Your task to perform on an android device: Do I have any events tomorrow? Image 0: 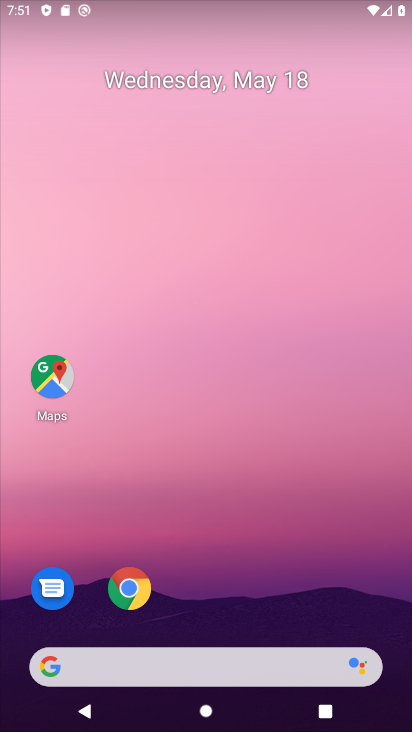
Step 0: drag from (256, 609) to (296, 200)
Your task to perform on an android device: Do I have any events tomorrow? Image 1: 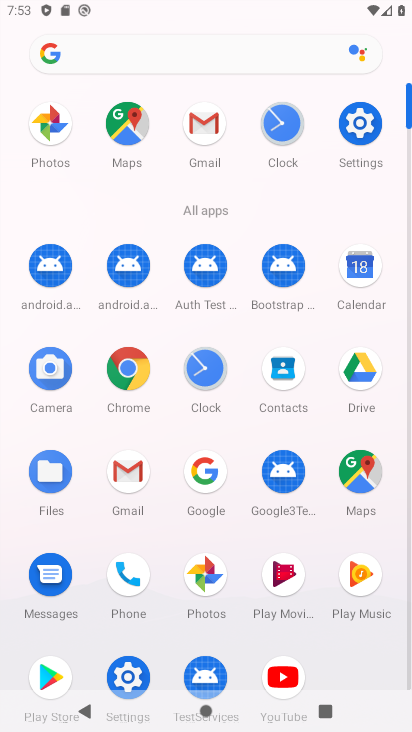
Step 1: click (360, 287)
Your task to perform on an android device: Do I have any events tomorrow? Image 2: 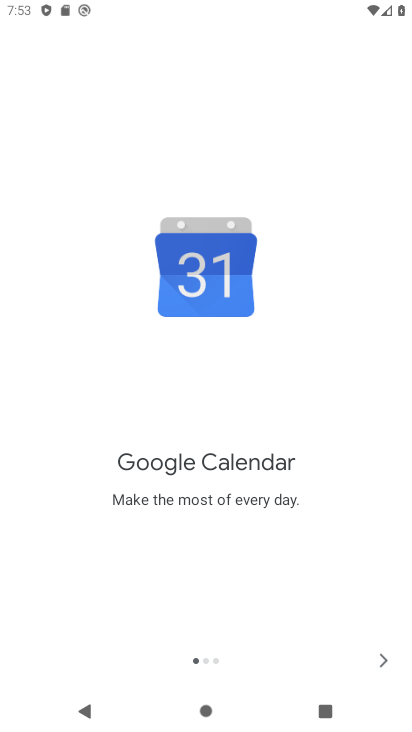
Step 2: click (392, 653)
Your task to perform on an android device: Do I have any events tomorrow? Image 3: 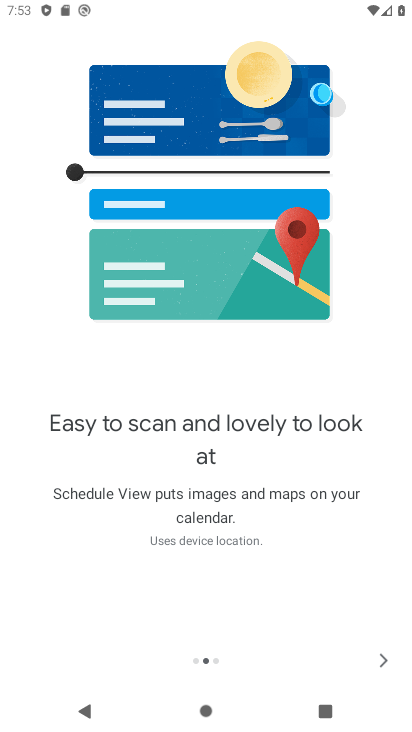
Step 3: click (392, 653)
Your task to perform on an android device: Do I have any events tomorrow? Image 4: 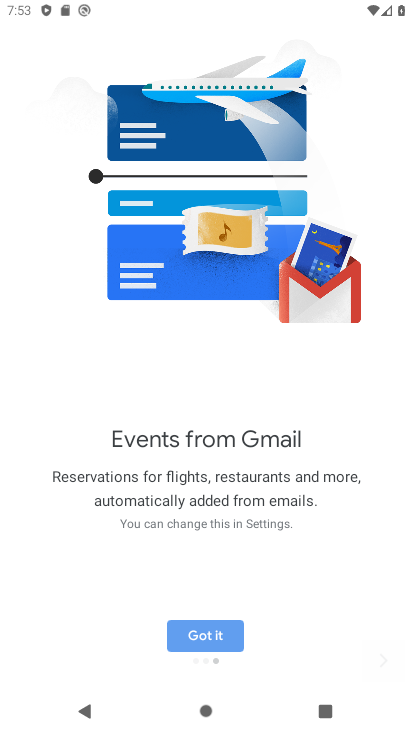
Step 4: click (392, 653)
Your task to perform on an android device: Do I have any events tomorrow? Image 5: 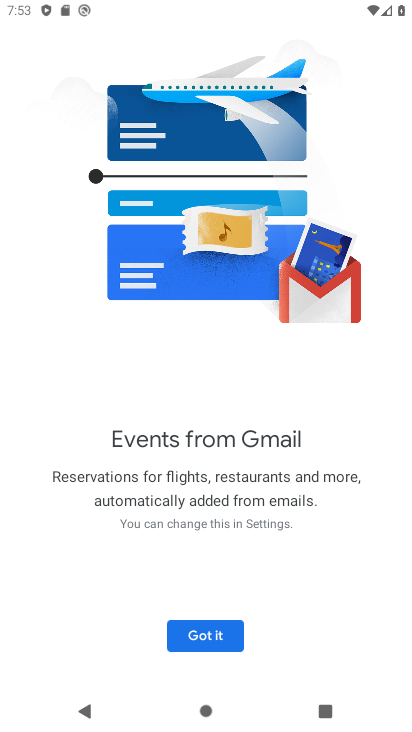
Step 5: click (174, 628)
Your task to perform on an android device: Do I have any events tomorrow? Image 6: 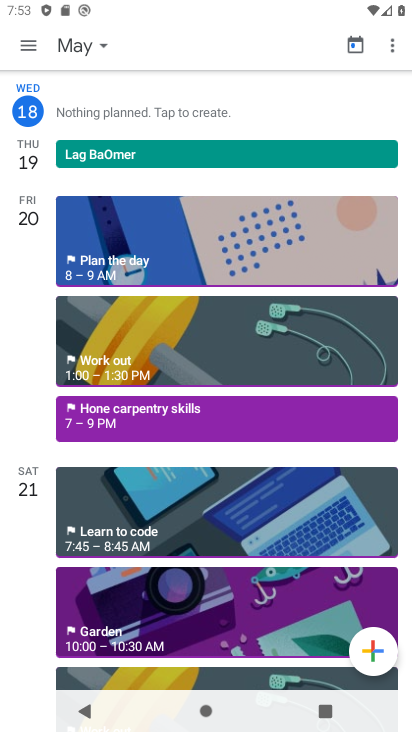
Step 6: click (27, 228)
Your task to perform on an android device: Do I have any events tomorrow? Image 7: 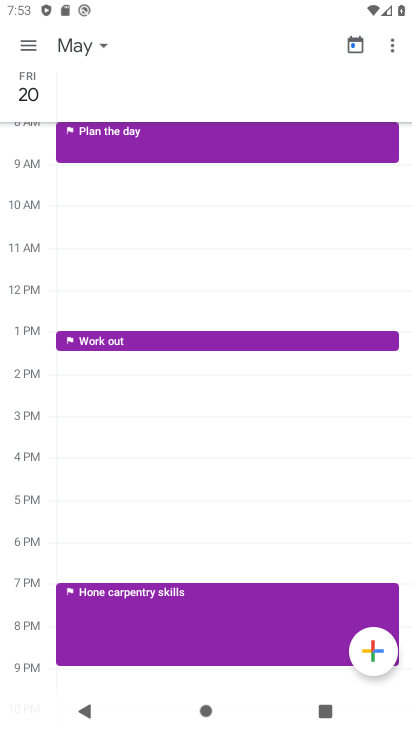
Step 7: task complete